Your task to perform on an android device: open chrome and create a bookmark for the current page Image 0: 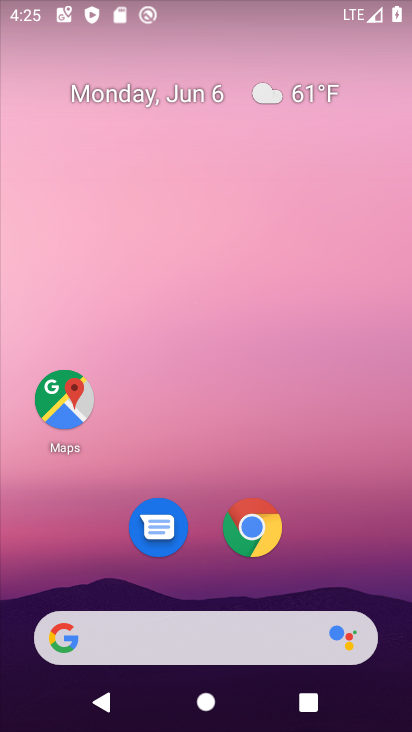
Step 0: click (255, 524)
Your task to perform on an android device: open chrome and create a bookmark for the current page Image 1: 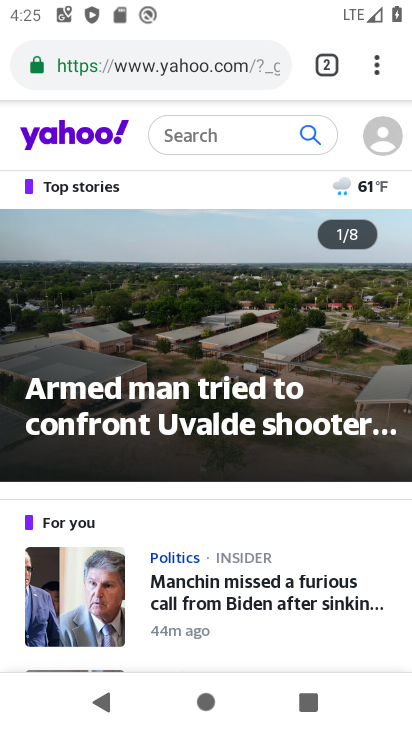
Step 1: click (380, 54)
Your task to perform on an android device: open chrome and create a bookmark for the current page Image 2: 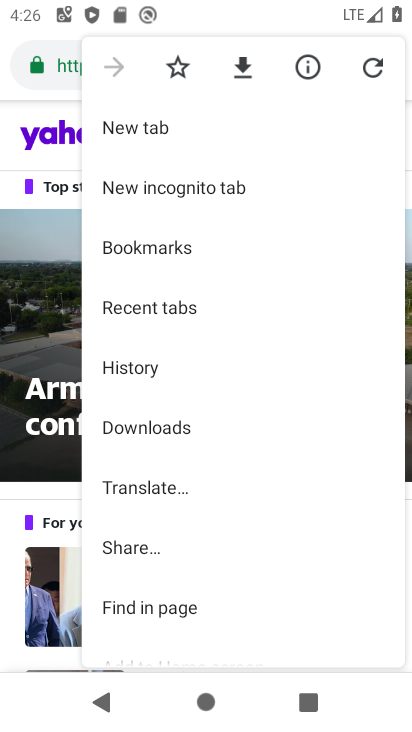
Step 2: click (174, 59)
Your task to perform on an android device: open chrome and create a bookmark for the current page Image 3: 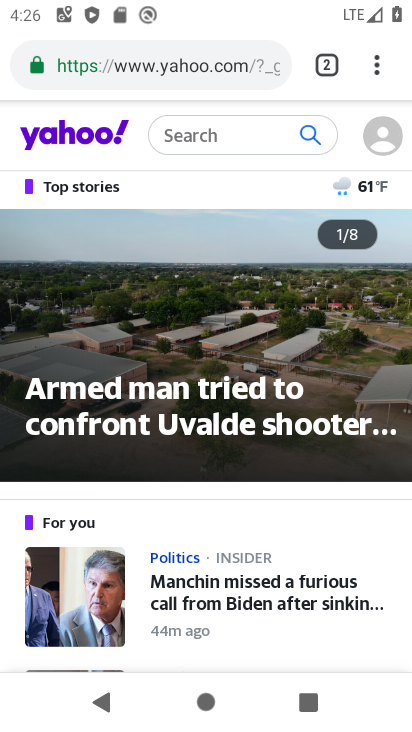
Step 3: click (385, 64)
Your task to perform on an android device: open chrome and create a bookmark for the current page Image 4: 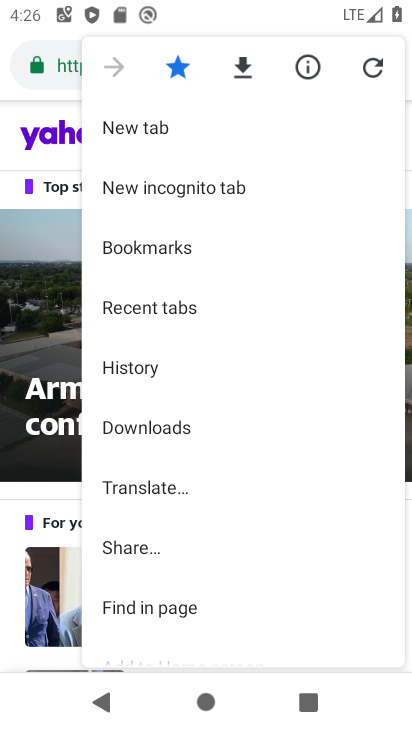
Step 4: click (184, 241)
Your task to perform on an android device: open chrome and create a bookmark for the current page Image 5: 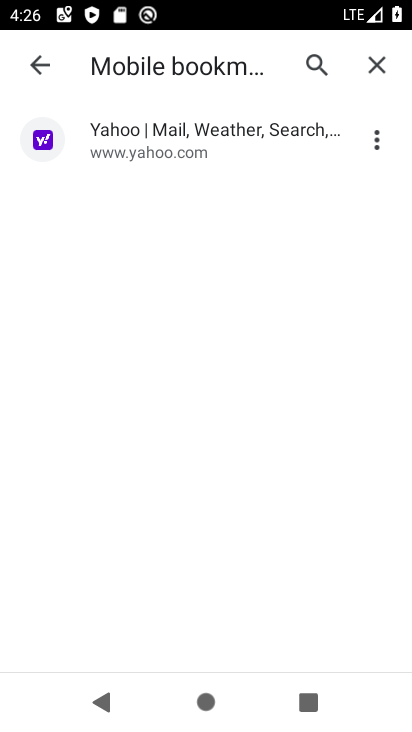
Step 5: task complete